Your task to perform on an android device: What's the weather going to be this weekend? Image 0: 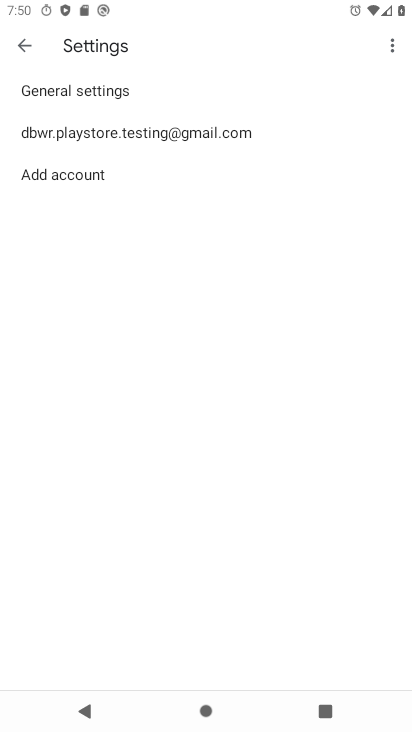
Step 0: press home button
Your task to perform on an android device: What's the weather going to be this weekend? Image 1: 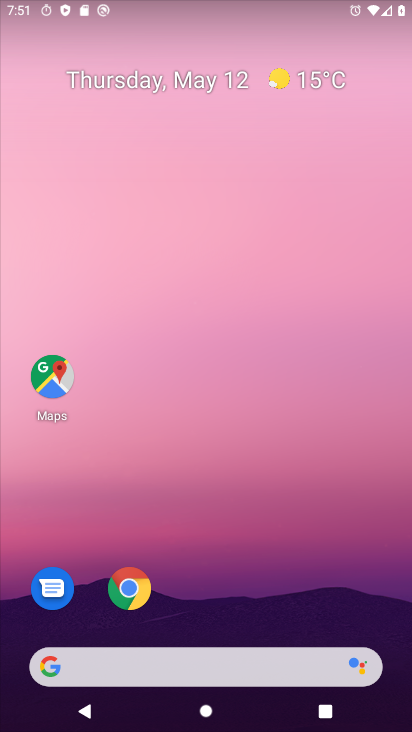
Step 1: click (123, 585)
Your task to perform on an android device: What's the weather going to be this weekend? Image 2: 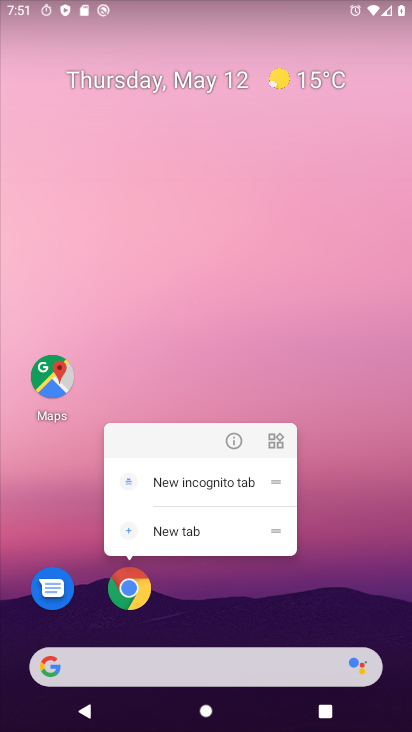
Step 2: click (125, 585)
Your task to perform on an android device: What's the weather going to be this weekend? Image 3: 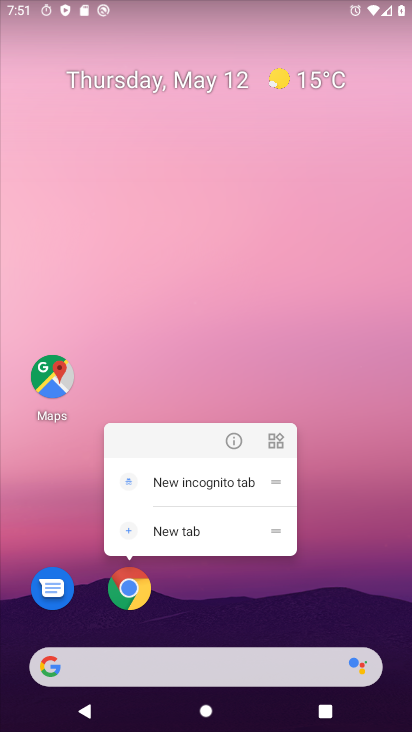
Step 3: click (129, 575)
Your task to perform on an android device: What's the weather going to be this weekend? Image 4: 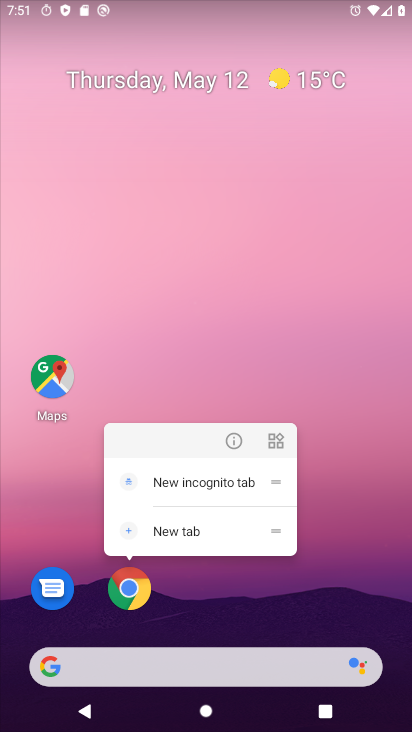
Step 4: click (130, 595)
Your task to perform on an android device: What's the weather going to be this weekend? Image 5: 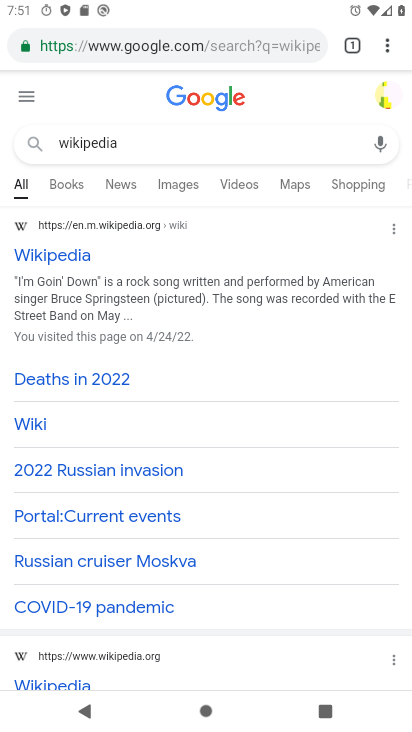
Step 5: click (97, 46)
Your task to perform on an android device: What's the weather going to be this weekend? Image 6: 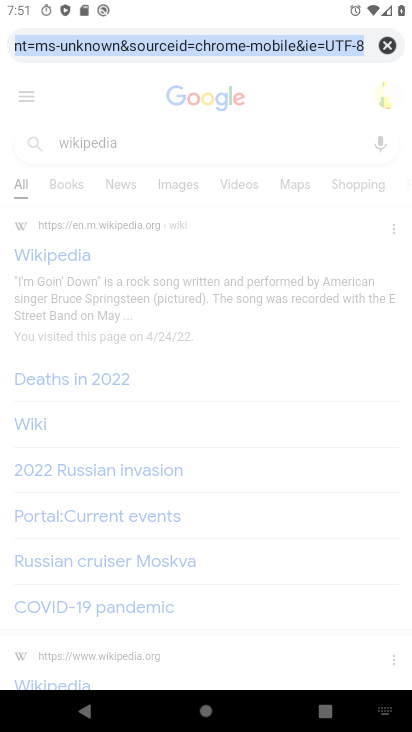
Step 6: type "What's the weather going to be this weekend?"
Your task to perform on an android device: What's the weather going to be this weekend? Image 7: 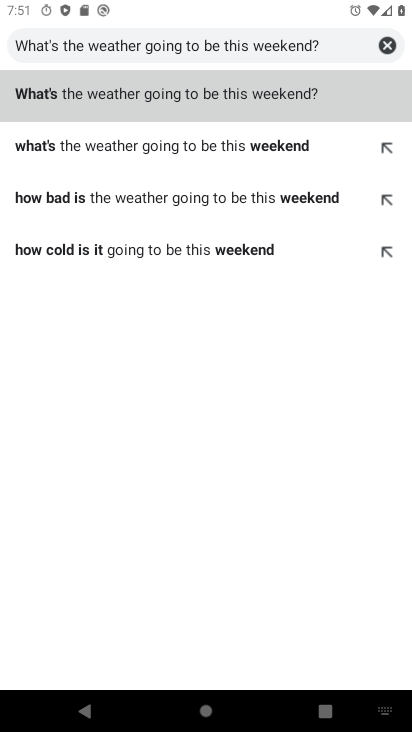
Step 7: click (165, 101)
Your task to perform on an android device: What's the weather going to be this weekend? Image 8: 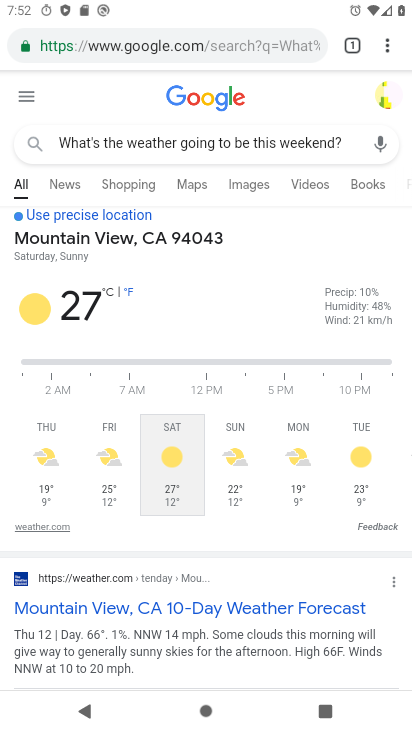
Step 8: task complete